Your task to perform on an android device: Search for floor lamps on article.com Image 0: 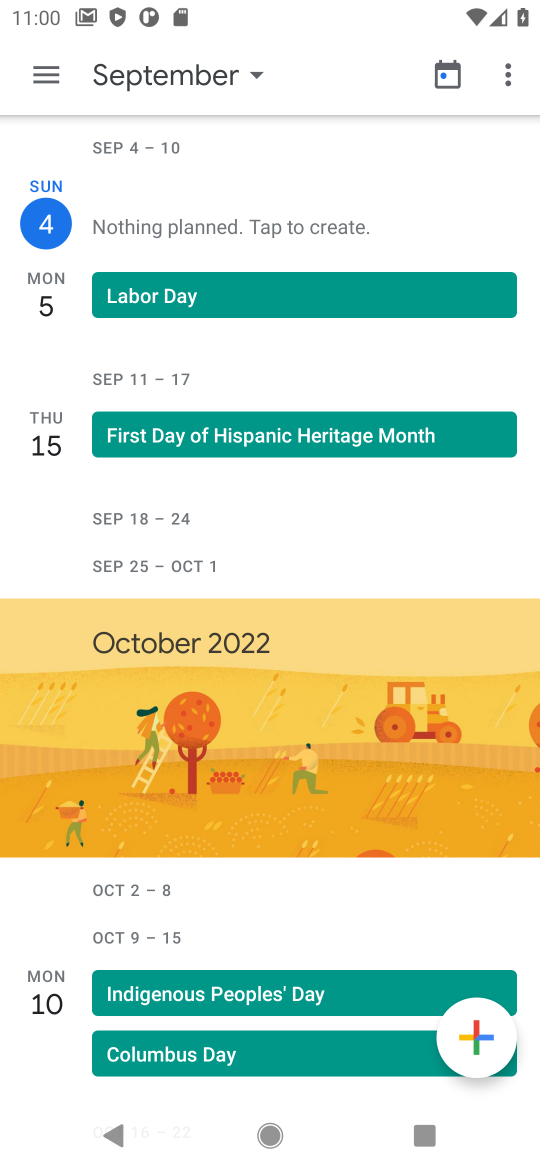
Step 0: press back button
Your task to perform on an android device: Search for floor lamps on article.com Image 1: 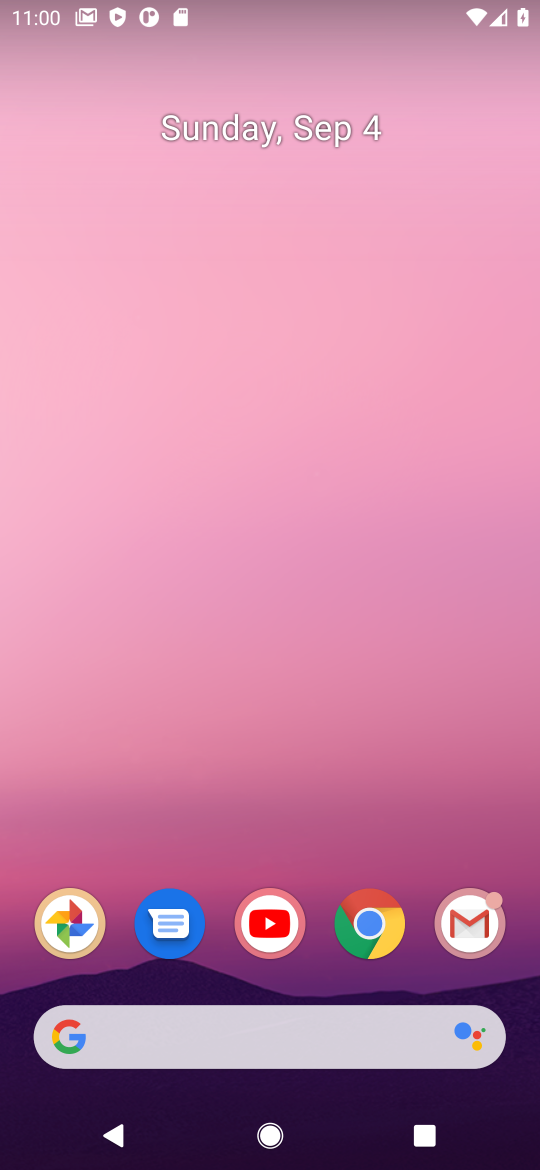
Step 1: click (350, 932)
Your task to perform on an android device: Search for floor lamps on article.com Image 2: 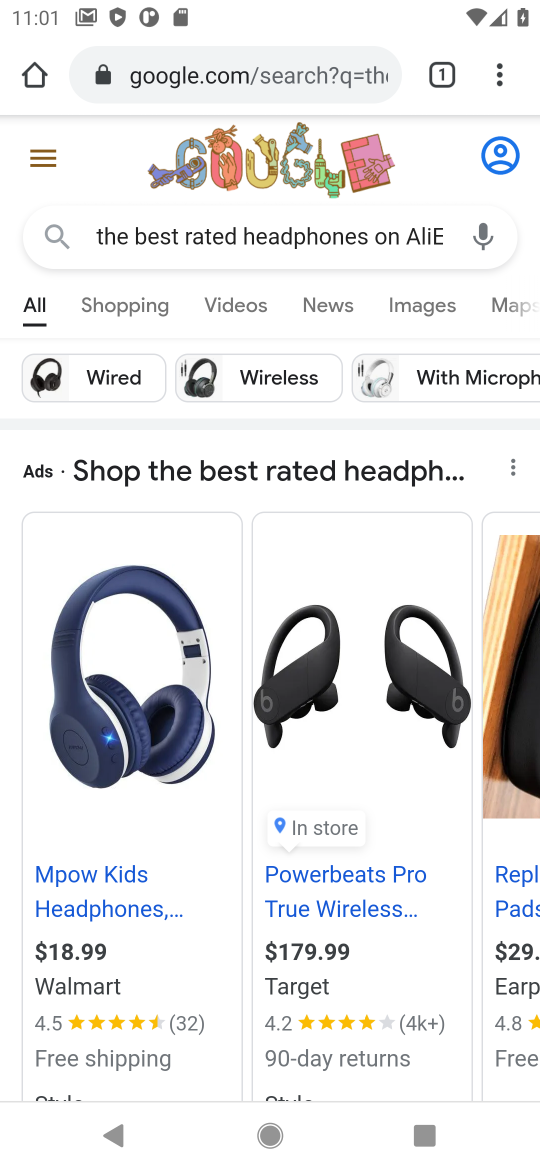
Step 2: task complete